Your task to perform on an android device: toggle data saver in the chrome app Image 0: 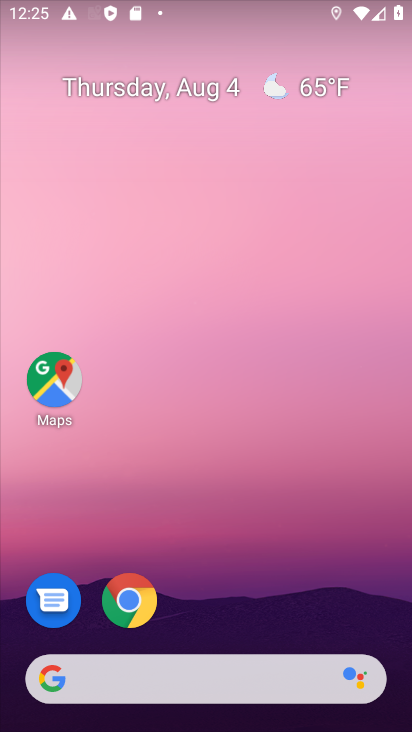
Step 0: click (140, 592)
Your task to perform on an android device: toggle data saver in the chrome app Image 1: 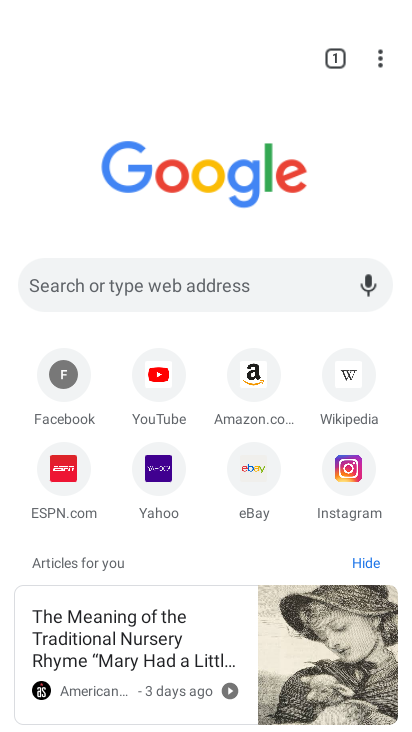
Step 1: click (375, 54)
Your task to perform on an android device: toggle data saver in the chrome app Image 2: 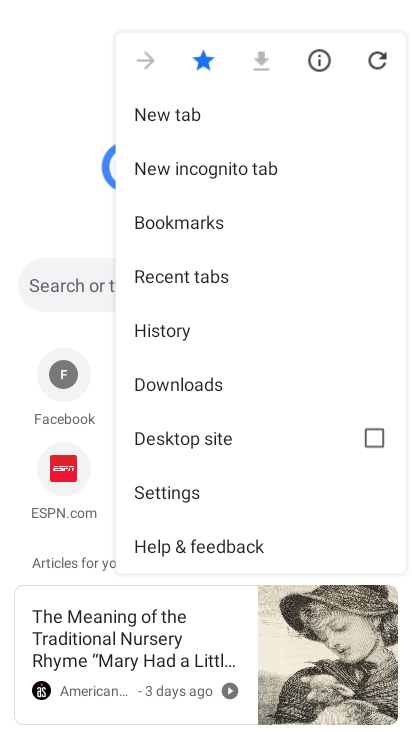
Step 2: click (164, 499)
Your task to perform on an android device: toggle data saver in the chrome app Image 3: 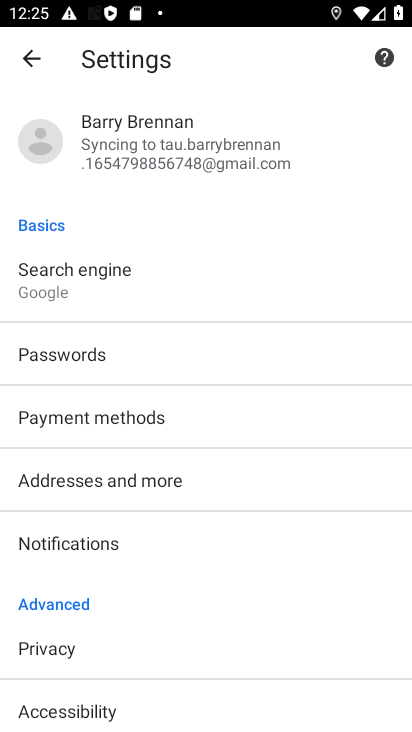
Step 3: drag from (113, 656) to (91, 6)
Your task to perform on an android device: toggle data saver in the chrome app Image 4: 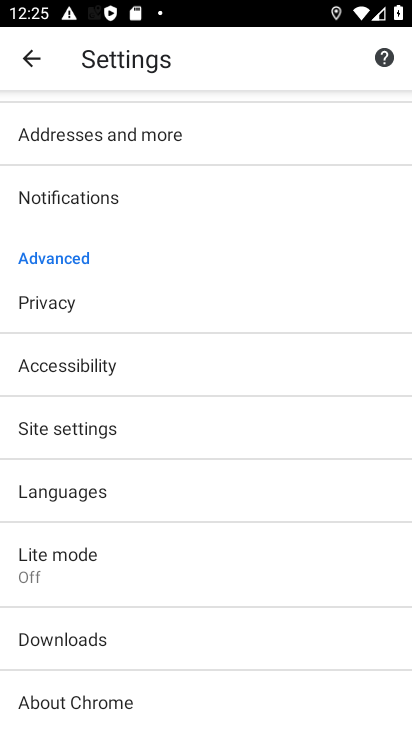
Step 4: click (65, 557)
Your task to perform on an android device: toggle data saver in the chrome app Image 5: 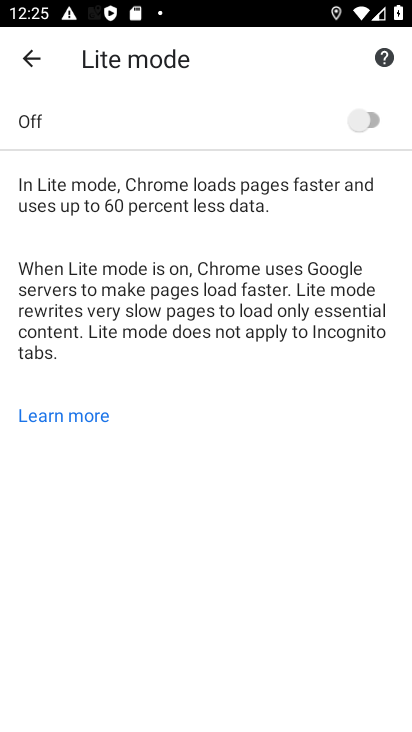
Step 5: click (349, 127)
Your task to perform on an android device: toggle data saver in the chrome app Image 6: 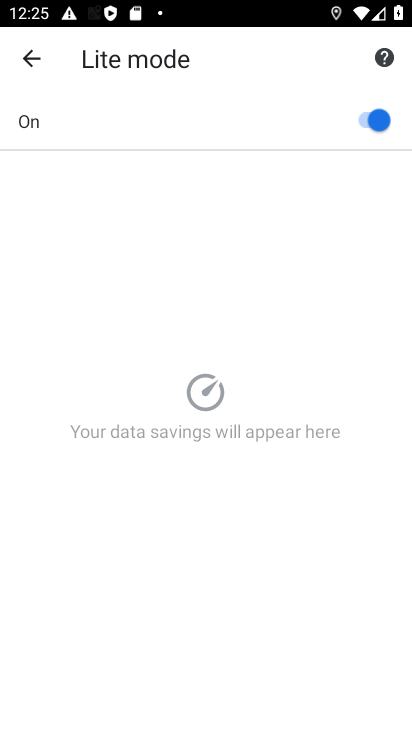
Step 6: task complete